Your task to perform on an android device: add a label to a message in the gmail app Image 0: 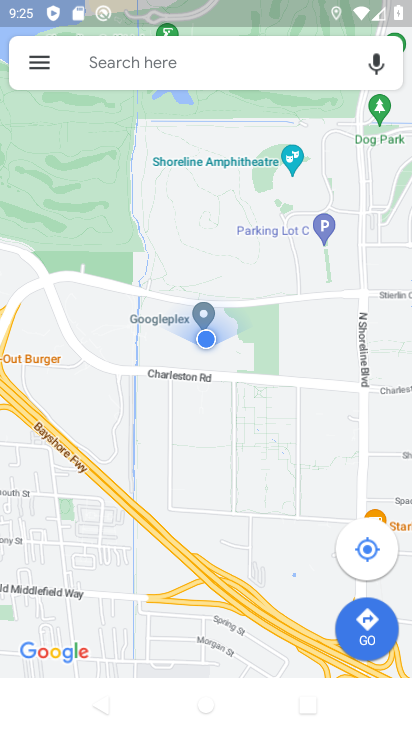
Step 0: press back button
Your task to perform on an android device: add a label to a message in the gmail app Image 1: 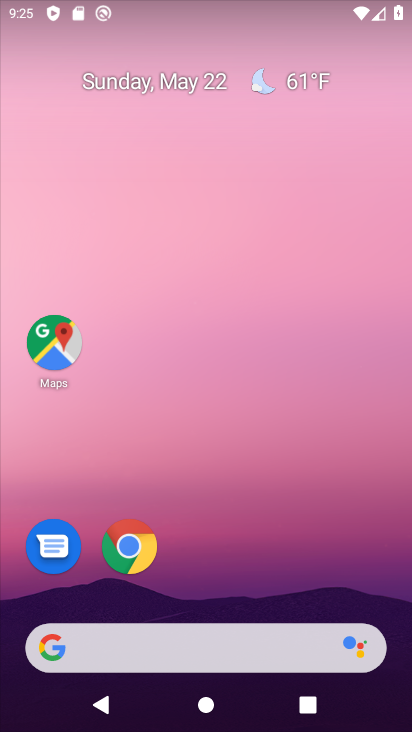
Step 1: drag from (257, 573) to (153, 99)
Your task to perform on an android device: add a label to a message in the gmail app Image 2: 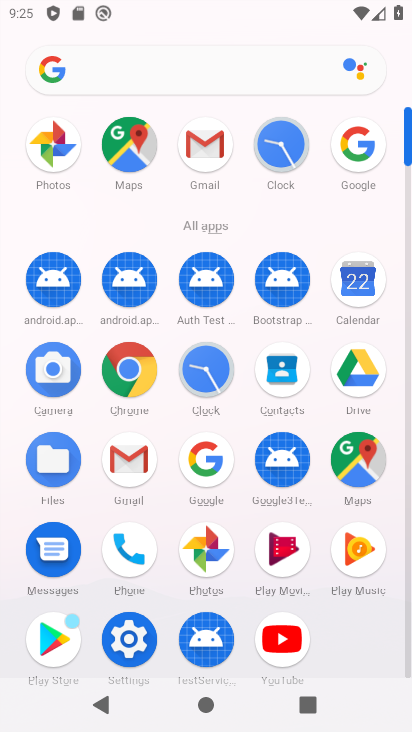
Step 2: click (204, 141)
Your task to perform on an android device: add a label to a message in the gmail app Image 3: 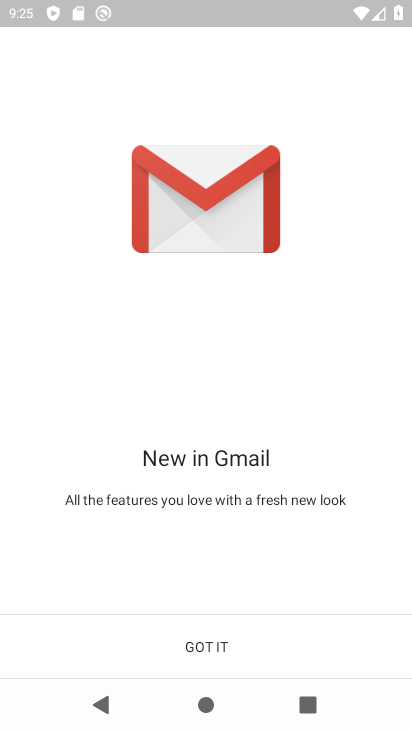
Step 3: click (209, 648)
Your task to perform on an android device: add a label to a message in the gmail app Image 4: 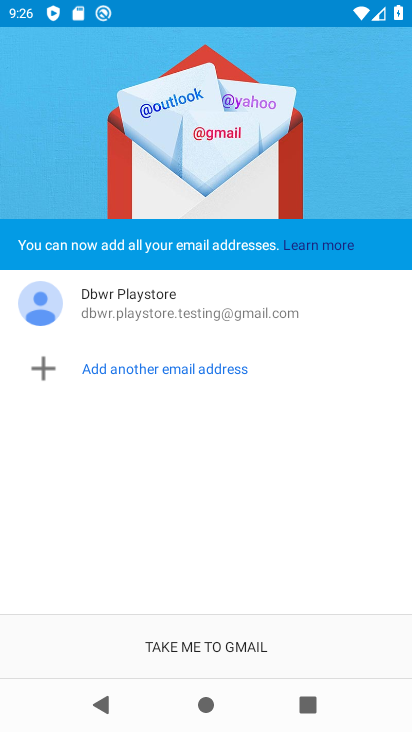
Step 4: click (209, 642)
Your task to perform on an android device: add a label to a message in the gmail app Image 5: 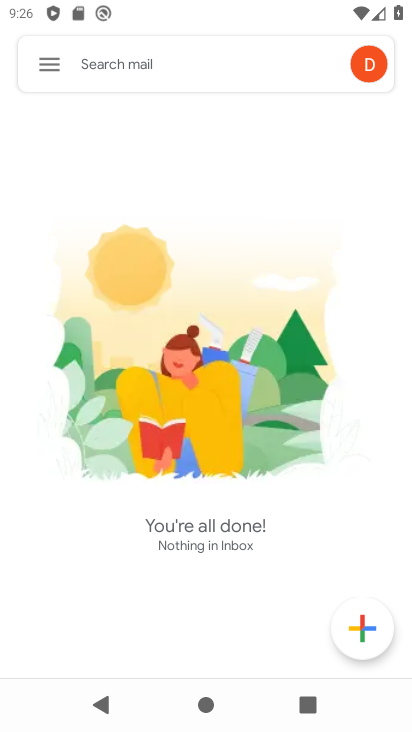
Step 5: click (49, 69)
Your task to perform on an android device: add a label to a message in the gmail app Image 6: 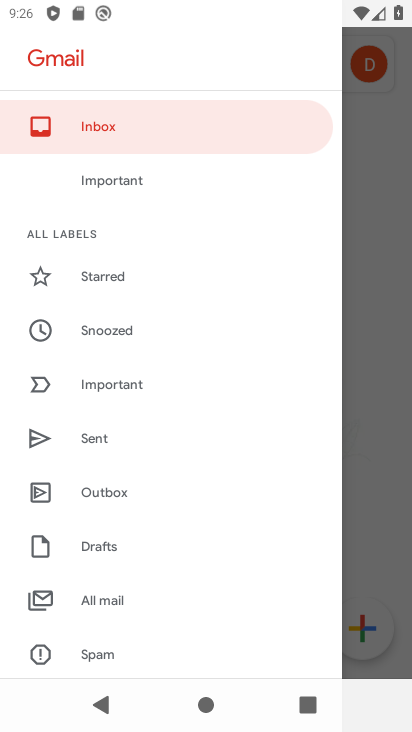
Step 6: click (87, 598)
Your task to perform on an android device: add a label to a message in the gmail app Image 7: 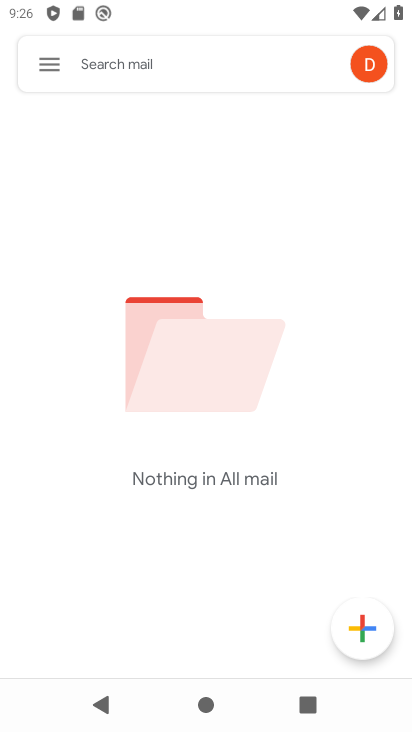
Step 7: click (48, 63)
Your task to perform on an android device: add a label to a message in the gmail app Image 8: 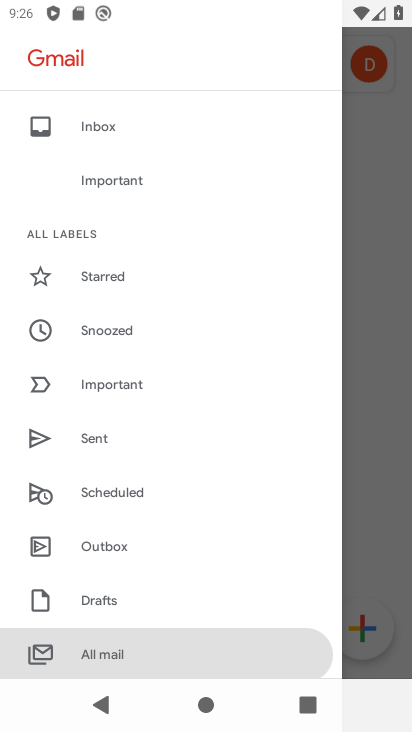
Step 8: click (107, 327)
Your task to perform on an android device: add a label to a message in the gmail app Image 9: 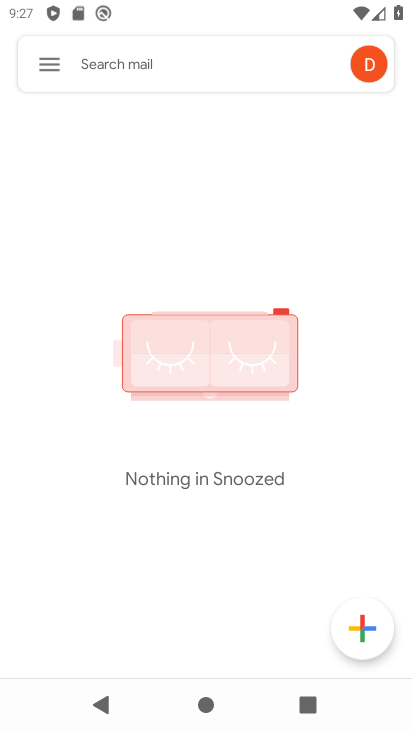
Step 9: task complete